Your task to perform on an android device: Open settings Image 0: 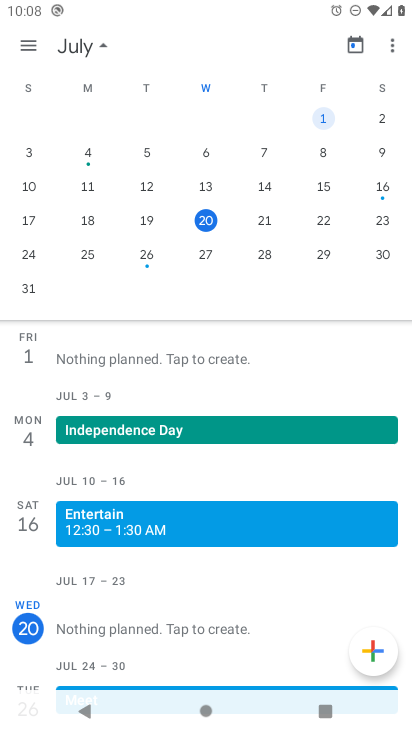
Step 0: press home button
Your task to perform on an android device: Open settings Image 1: 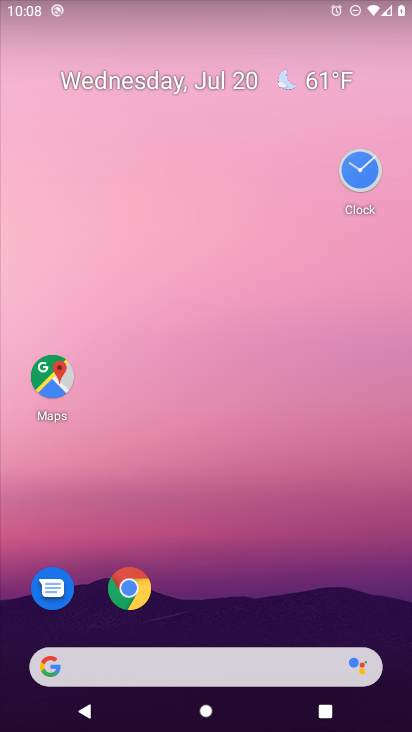
Step 1: drag from (45, 686) to (250, 54)
Your task to perform on an android device: Open settings Image 2: 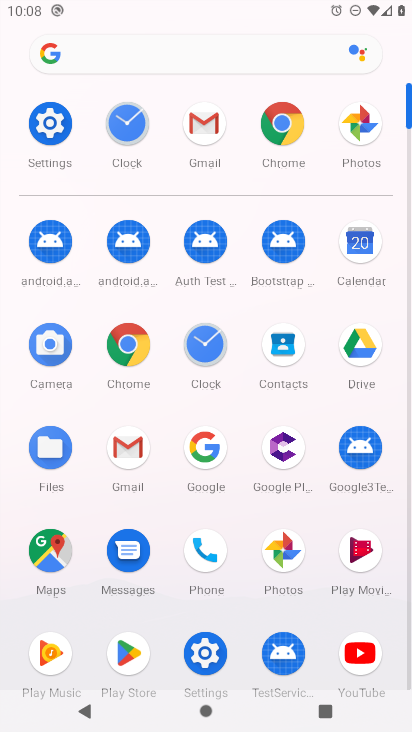
Step 2: click (200, 657)
Your task to perform on an android device: Open settings Image 3: 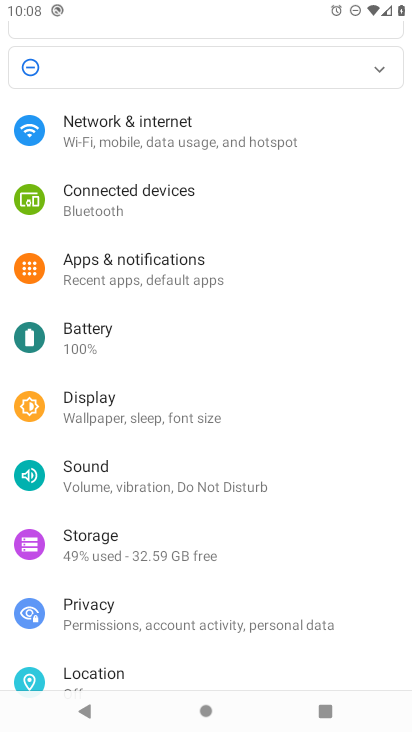
Step 3: task complete